Your task to perform on an android device: find photos in the google photos app Image 0: 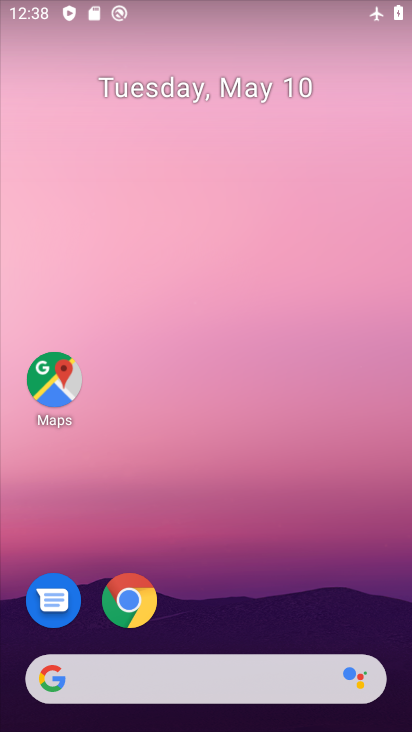
Step 0: drag from (161, 650) to (148, 71)
Your task to perform on an android device: find photos in the google photos app Image 1: 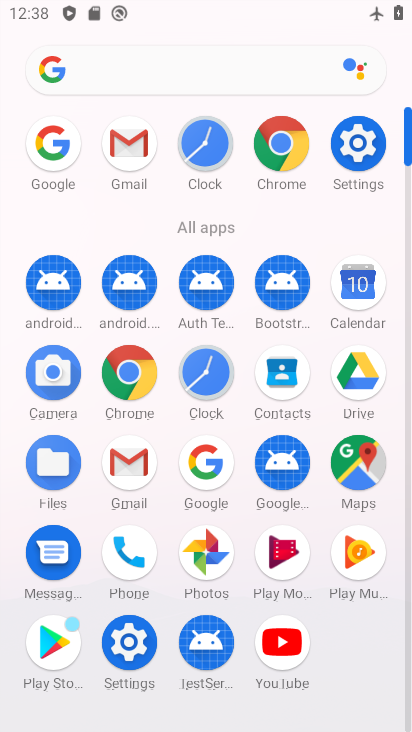
Step 1: click (216, 579)
Your task to perform on an android device: find photos in the google photos app Image 2: 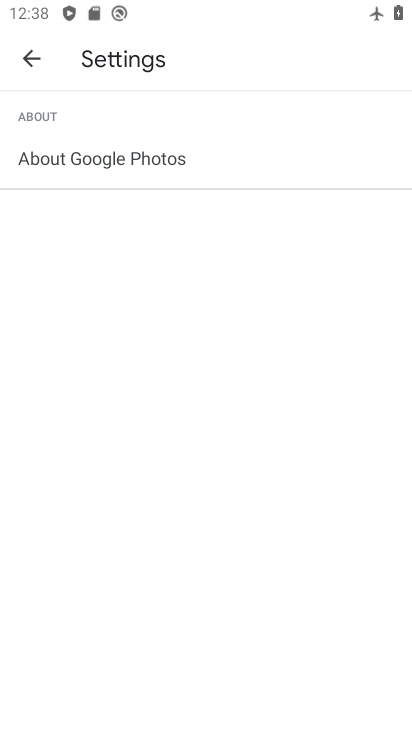
Step 2: click (26, 66)
Your task to perform on an android device: find photos in the google photos app Image 3: 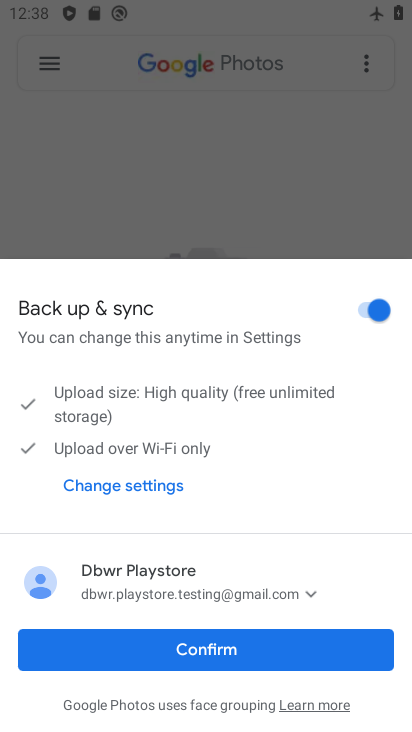
Step 3: click (206, 636)
Your task to perform on an android device: find photos in the google photos app Image 4: 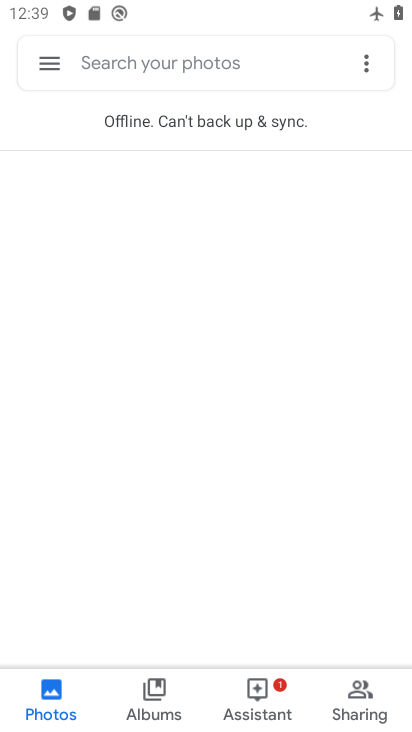
Step 4: task complete